Your task to perform on an android device: set an alarm Image 0: 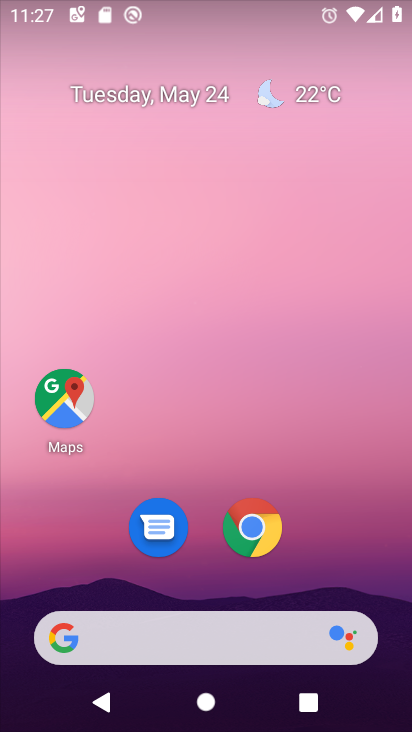
Step 0: press home button
Your task to perform on an android device: set an alarm Image 1: 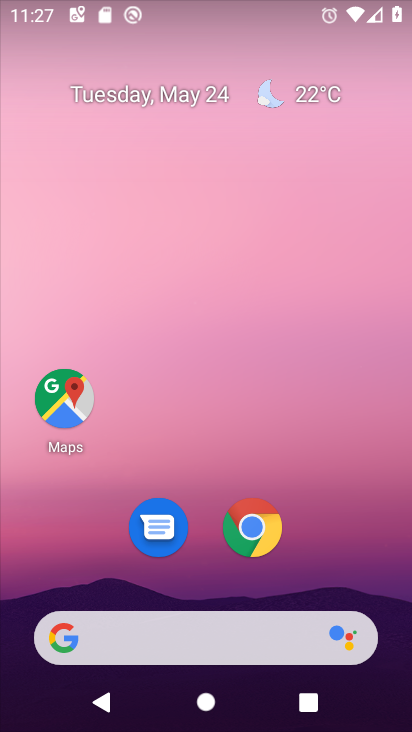
Step 1: drag from (224, 626) to (350, 144)
Your task to perform on an android device: set an alarm Image 2: 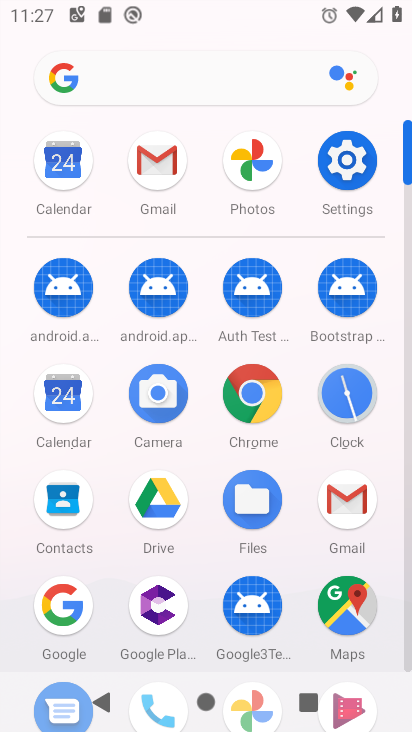
Step 2: click (339, 397)
Your task to perform on an android device: set an alarm Image 3: 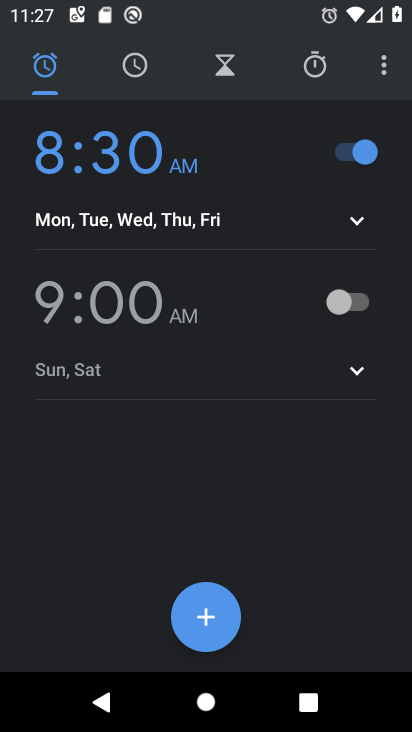
Step 3: click (366, 296)
Your task to perform on an android device: set an alarm Image 4: 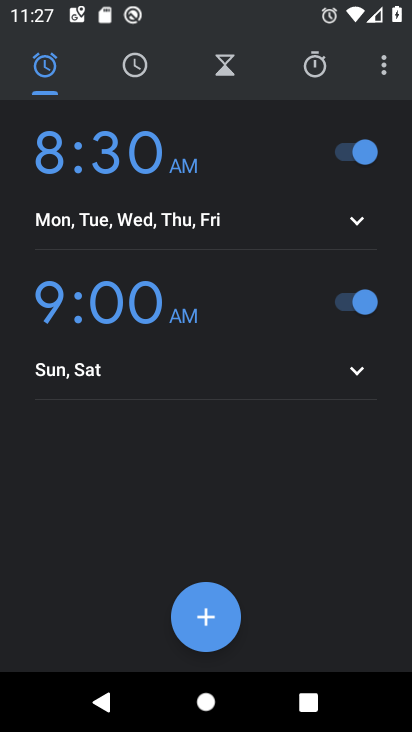
Step 4: task complete